Your task to perform on an android device: Open location settings Image 0: 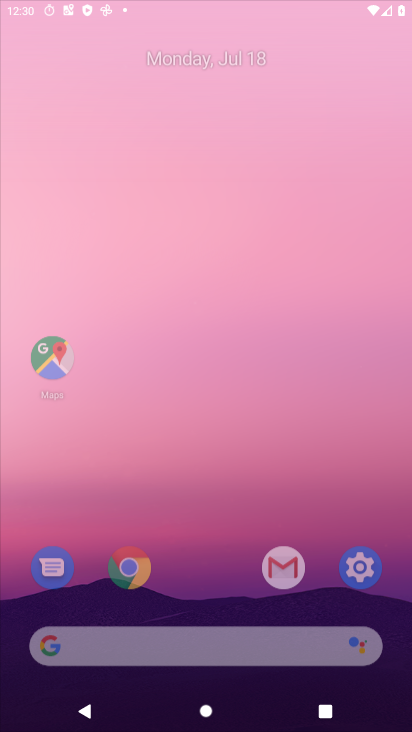
Step 0: click (142, 254)
Your task to perform on an android device: Open location settings Image 1: 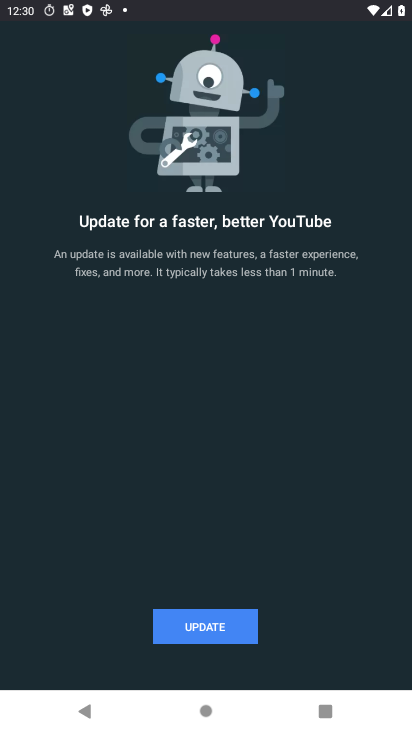
Step 1: press home button
Your task to perform on an android device: Open location settings Image 2: 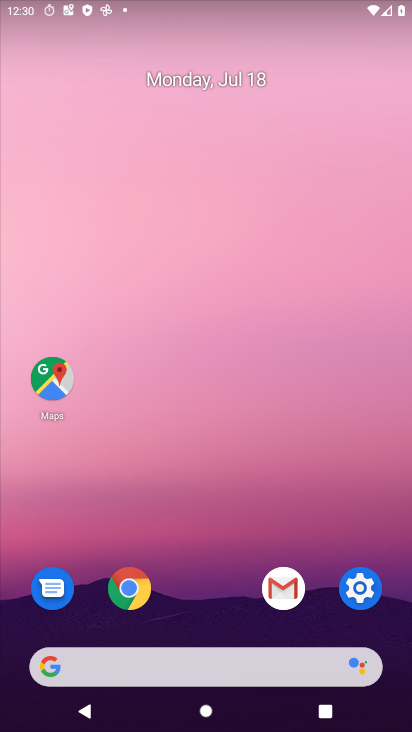
Step 2: drag from (280, 690) to (206, 222)
Your task to perform on an android device: Open location settings Image 3: 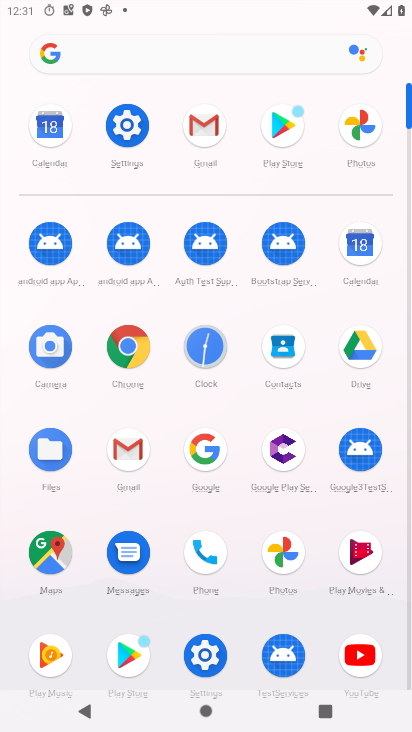
Step 3: click (139, 645)
Your task to perform on an android device: Open location settings Image 4: 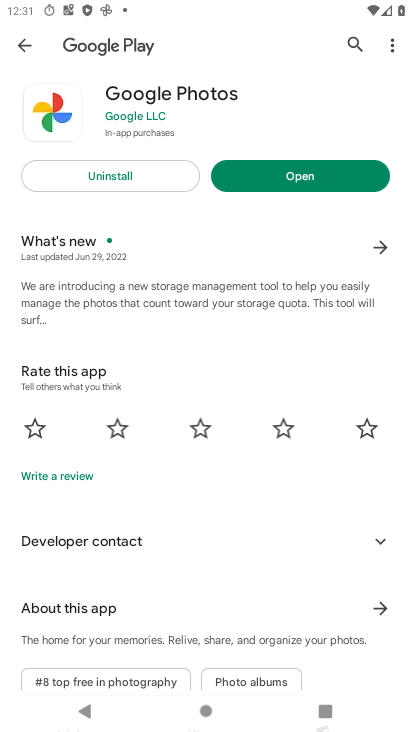
Step 4: press home button
Your task to perform on an android device: Open location settings Image 5: 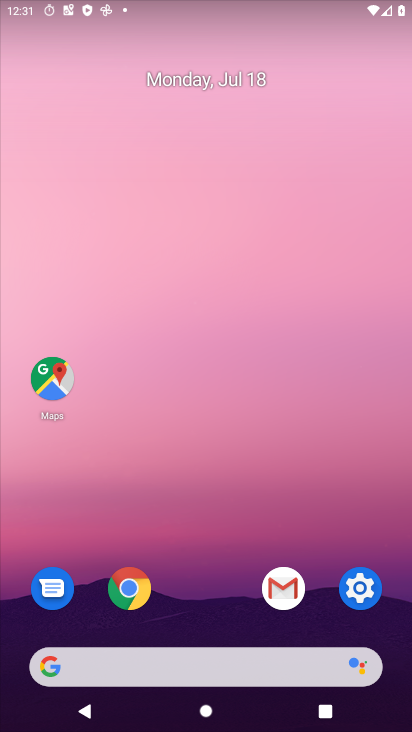
Step 5: click (346, 594)
Your task to perform on an android device: Open location settings Image 6: 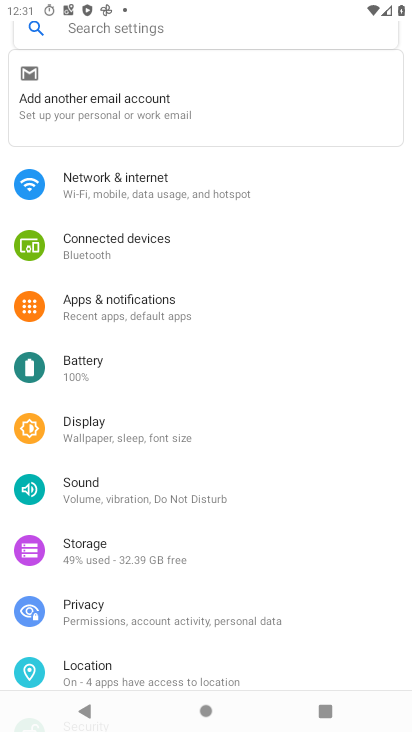
Step 6: click (126, 665)
Your task to perform on an android device: Open location settings Image 7: 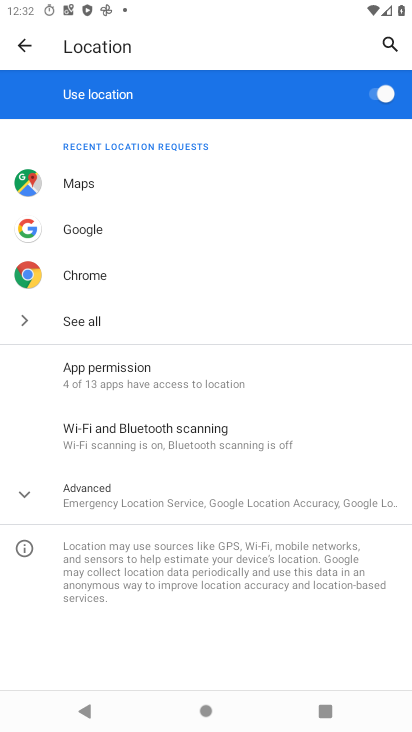
Step 7: task complete